Your task to perform on an android device: turn off sleep mode Image 0: 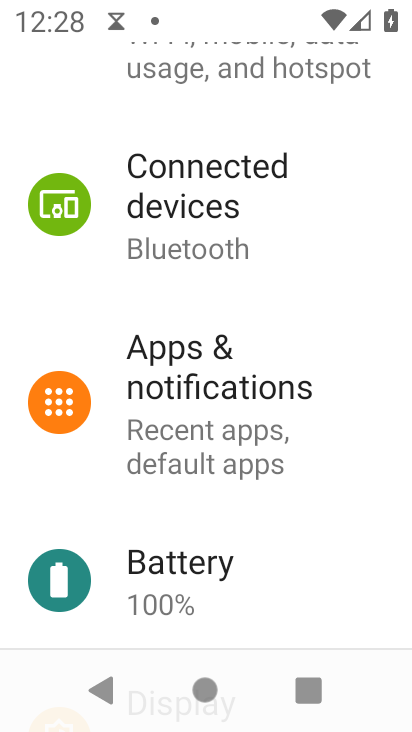
Step 0: press home button
Your task to perform on an android device: turn off sleep mode Image 1: 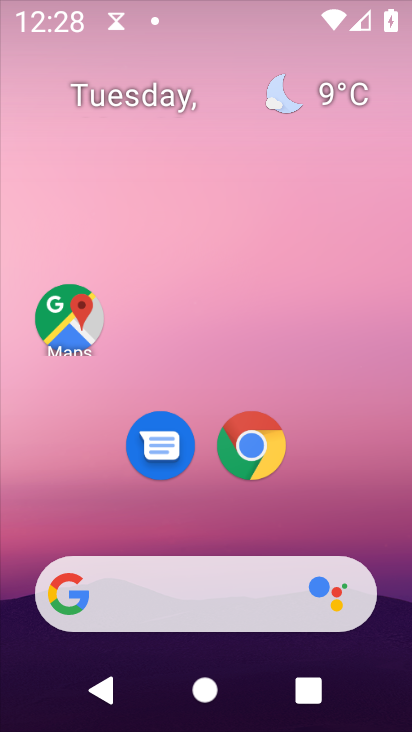
Step 1: drag from (300, 633) to (323, 10)
Your task to perform on an android device: turn off sleep mode Image 2: 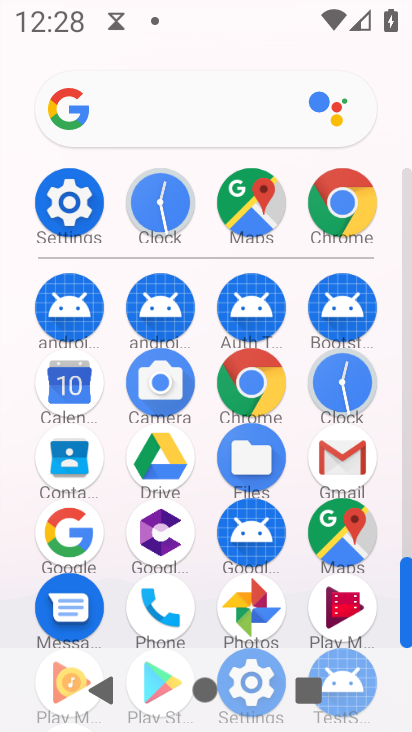
Step 2: click (88, 212)
Your task to perform on an android device: turn off sleep mode Image 3: 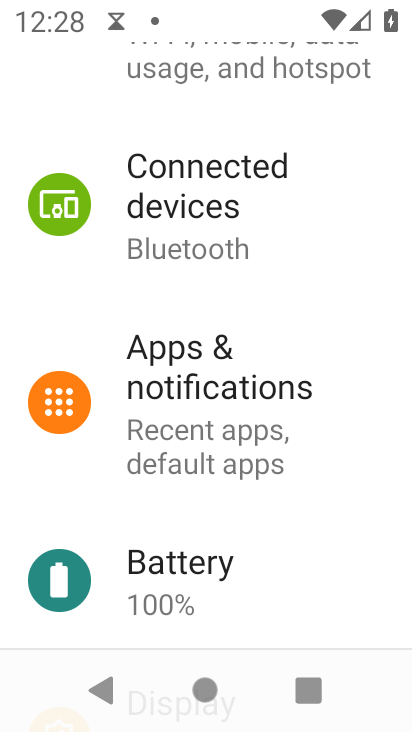
Step 3: drag from (235, 233) to (261, 632)
Your task to perform on an android device: turn off sleep mode Image 4: 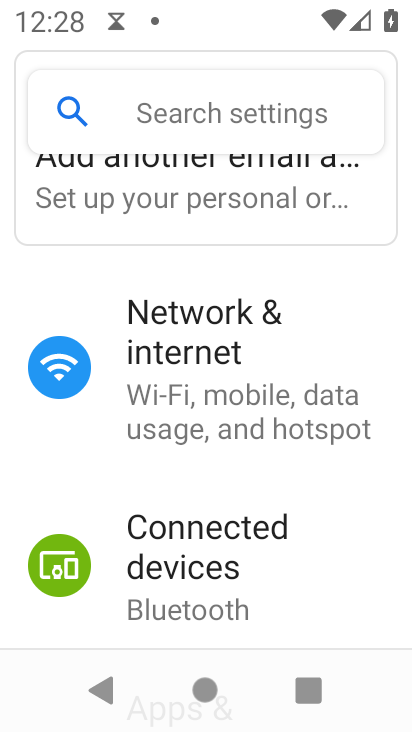
Step 4: drag from (220, 601) to (225, 96)
Your task to perform on an android device: turn off sleep mode Image 5: 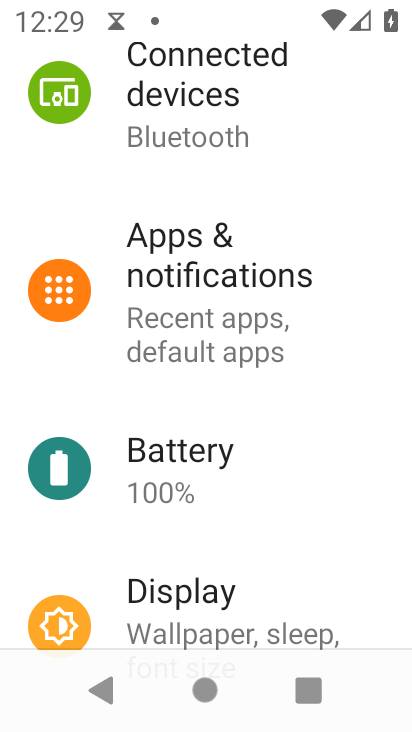
Step 5: drag from (303, 615) to (297, 429)
Your task to perform on an android device: turn off sleep mode Image 6: 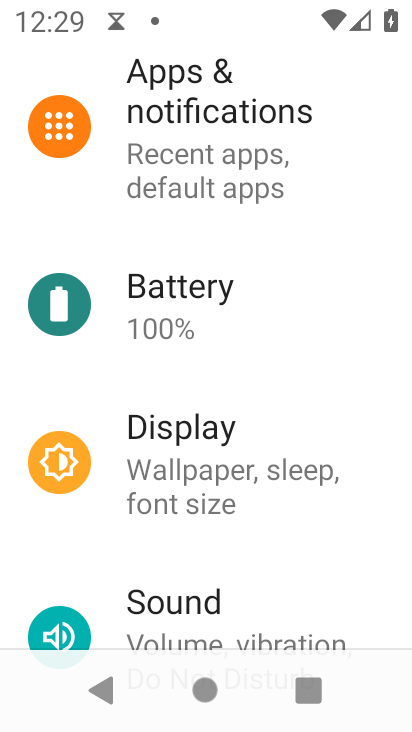
Step 6: click (285, 487)
Your task to perform on an android device: turn off sleep mode Image 7: 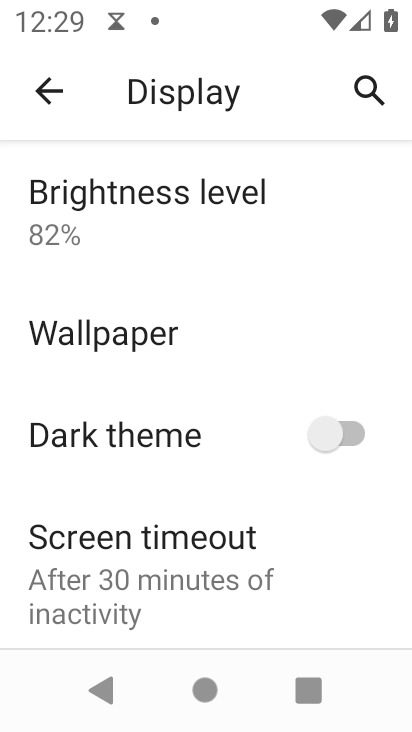
Step 7: task complete